Your task to perform on an android device: What is the news today? Image 0: 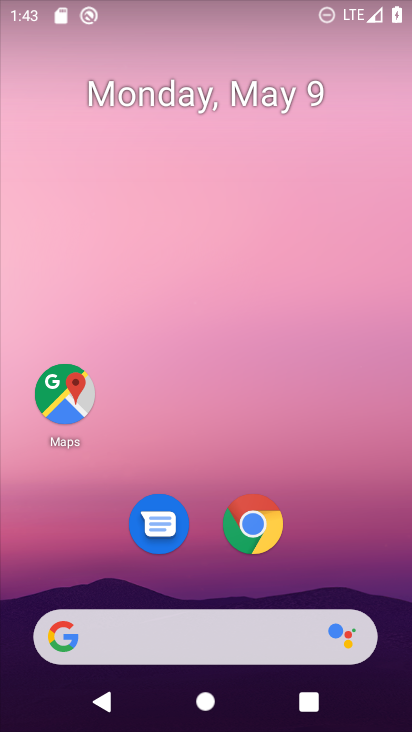
Step 0: drag from (352, 530) to (292, 205)
Your task to perform on an android device: What is the news today? Image 1: 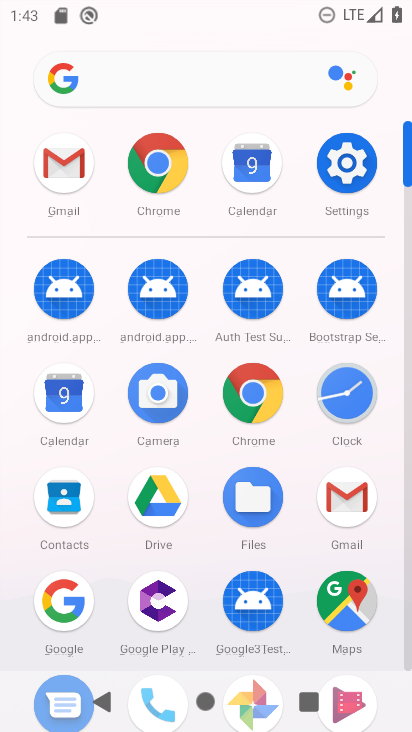
Step 1: click (62, 598)
Your task to perform on an android device: What is the news today? Image 2: 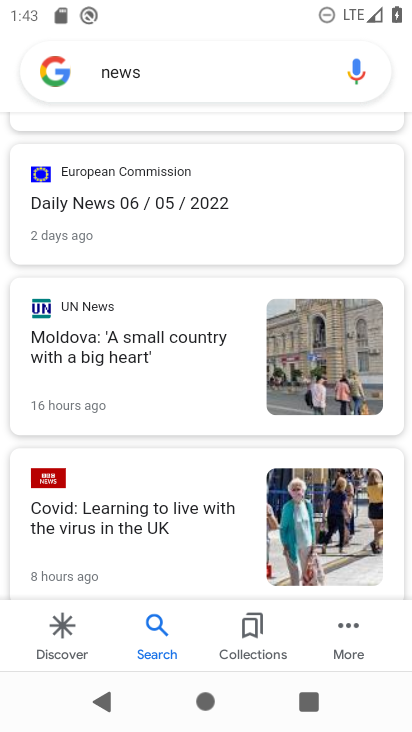
Step 2: task complete